Your task to perform on an android device: Open battery settings Image 0: 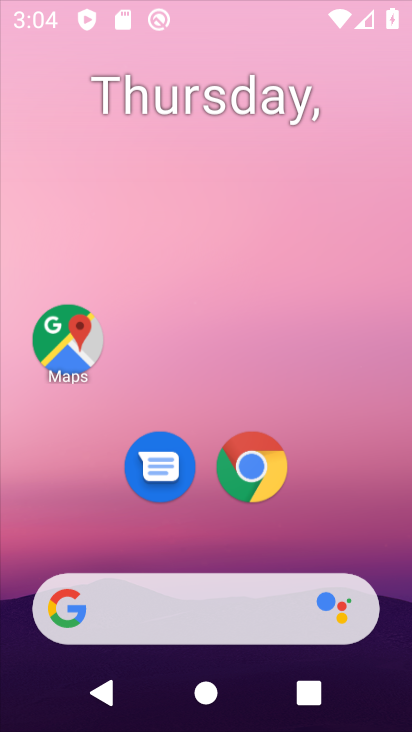
Step 0: click (201, 105)
Your task to perform on an android device: Open battery settings Image 1: 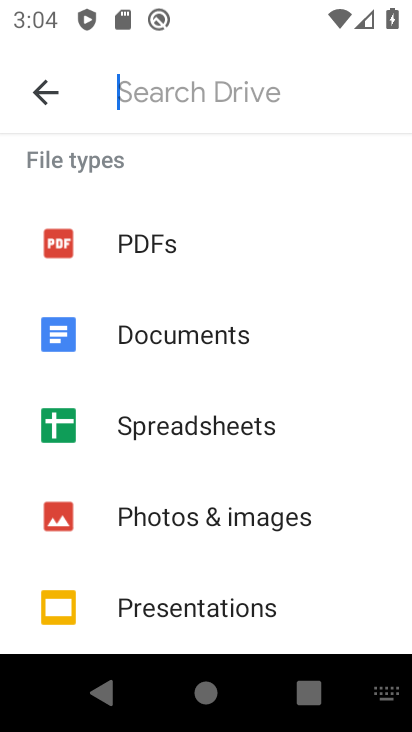
Step 1: press home button
Your task to perform on an android device: Open battery settings Image 2: 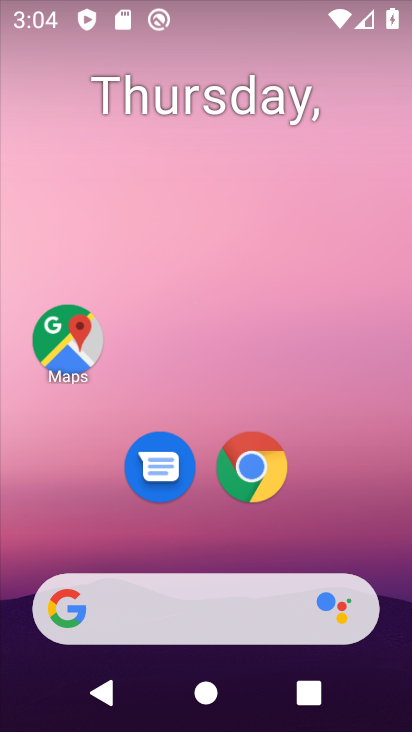
Step 2: drag from (237, 625) to (230, 15)
Your task to perform on an android device: Open battery settings Image 3: 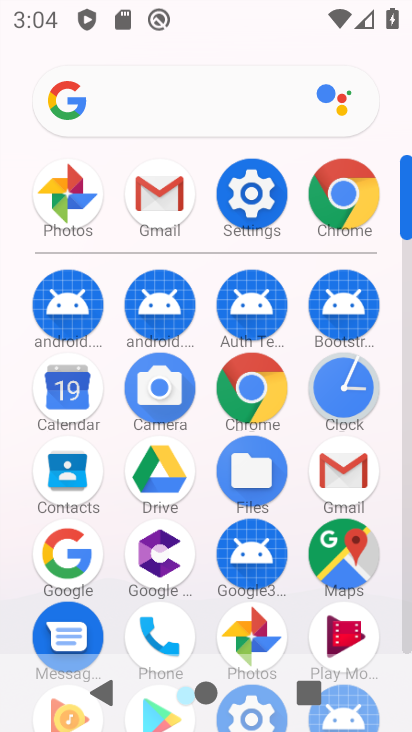
Step 3: click (236, 204)
Your task to perform on an android device: Open battery settings Image 4: 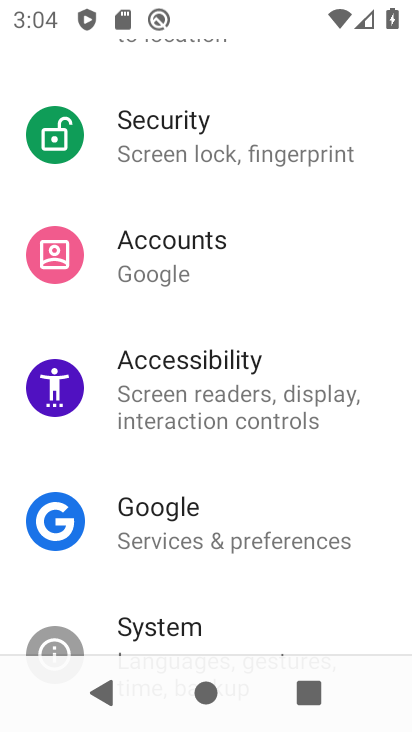
Step 4: drag from (195, 218) to (213, 598)
Your task to perform on an android device: Open battery settings Image 5: 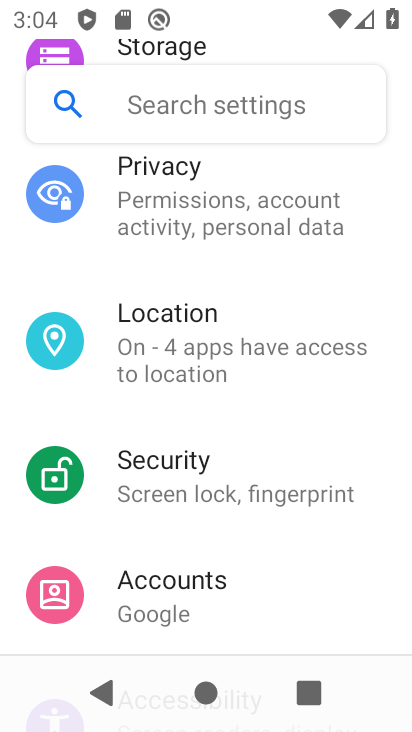
Step 5: drag from (173, 240) to (246, 687)
Your task to perform on an android device: Open battery settings Image 6: 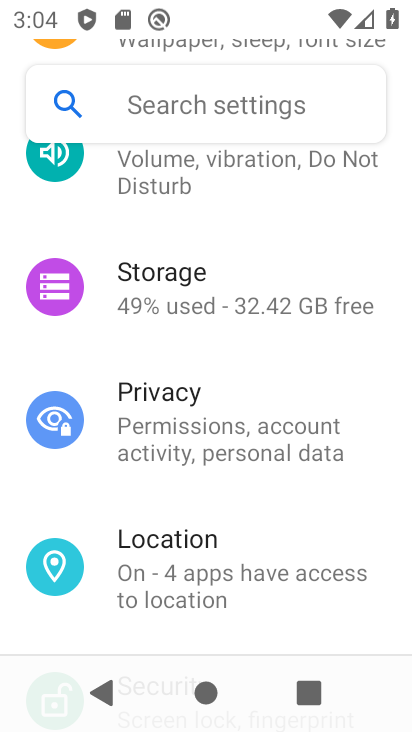
Step 6: drag from (204, 231) to (233, 641)
Your task to perform on an android device: Open battery settings Image 7: 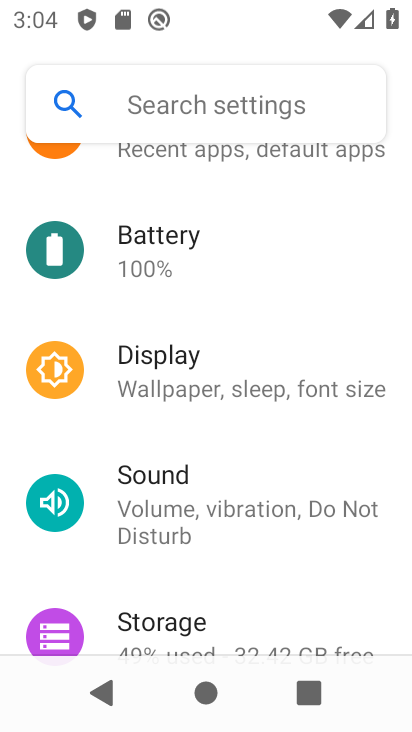
Step 7: click (148, 268)
Your task to perform on an android device: Open battery settings Image 8: 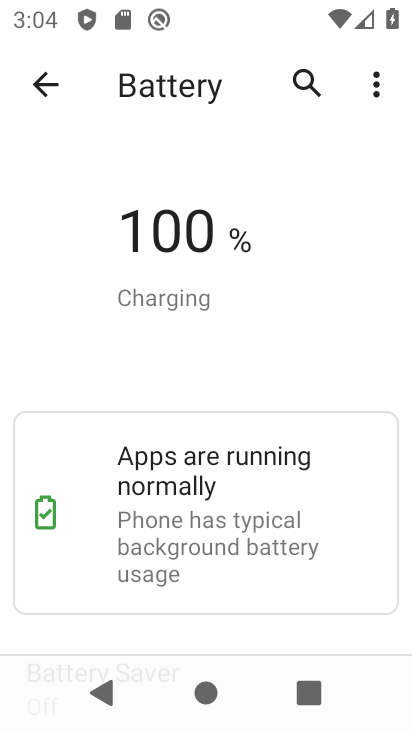
Step 8: task complete